Your task to perform on an android device: see tabs open on other devices in the chrome app Image 0: 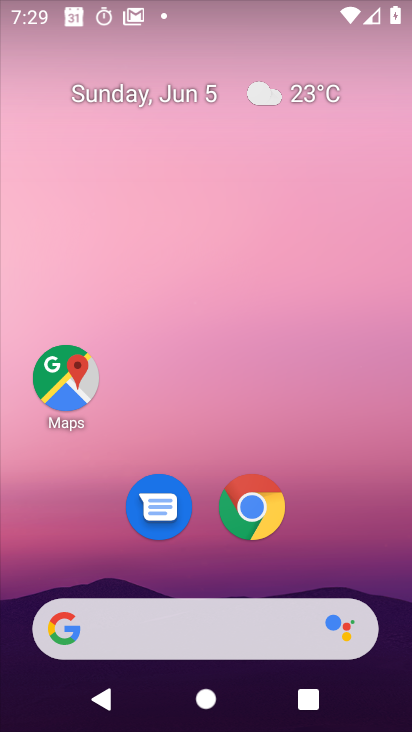
Step 0: press home button
Your task to perform on an android device: see tabs open on other devices in the chrome app Image 1: 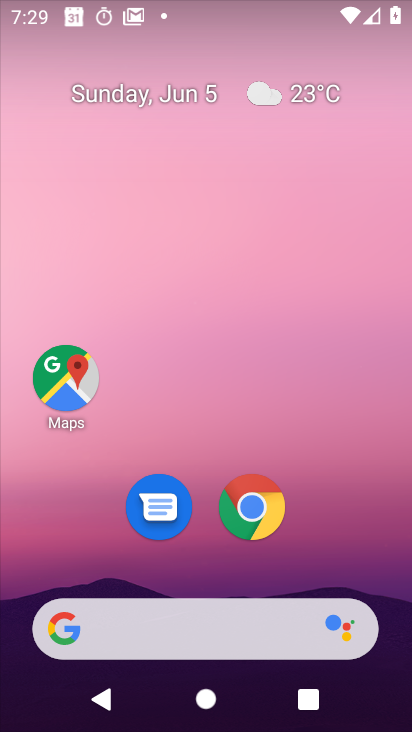
Step 1: drag from (298, 675) to (198, 240)
Your task to perform on an android device: see tabs open on other devices in the chrome app Image 2: 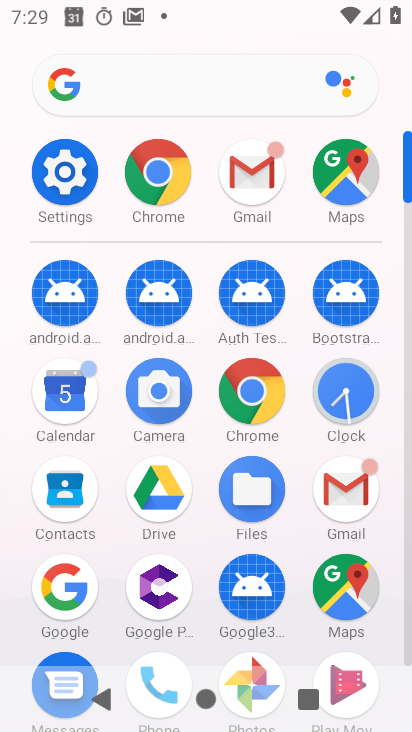
Step 2: click (165, 197)
Your task to perform on an android device: see tabs open on other devices in the chrome app Image 3: 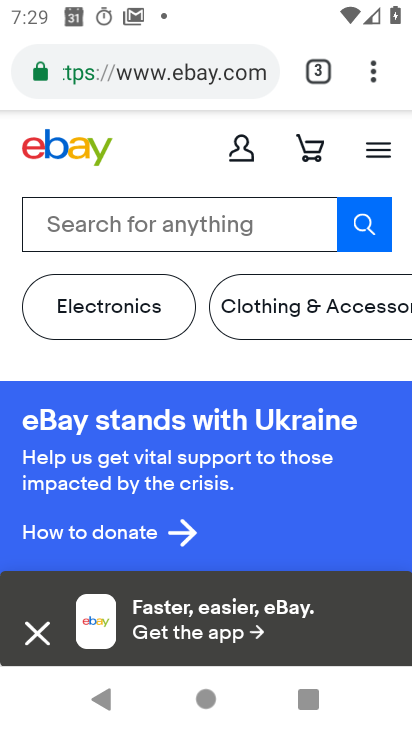
Step 3: click (314, 71)
Your task to perform on an android device: see tabs open on other devices in the chrome app Image 4: 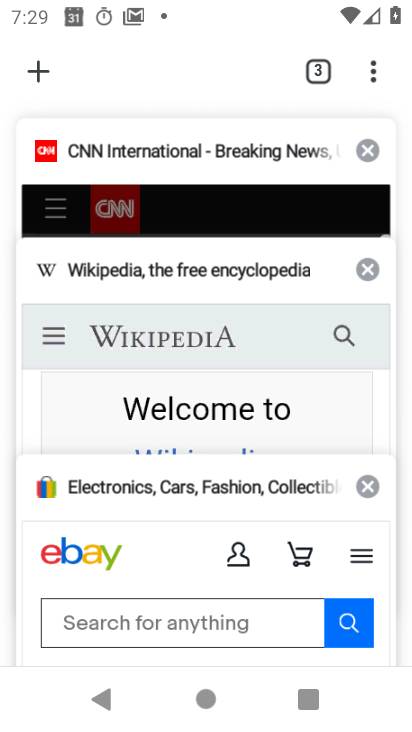
Step 4: click (50, 66)
Your task to perform on an android device: see tabs open on other devices in the chrome app Image 5: 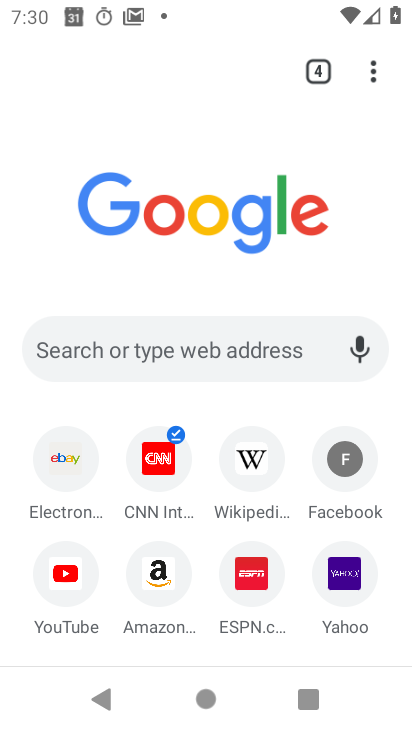
Step 5: task complete